Your task to perform on an android device: Open calendar and show me the fourth week of next month Image 0: 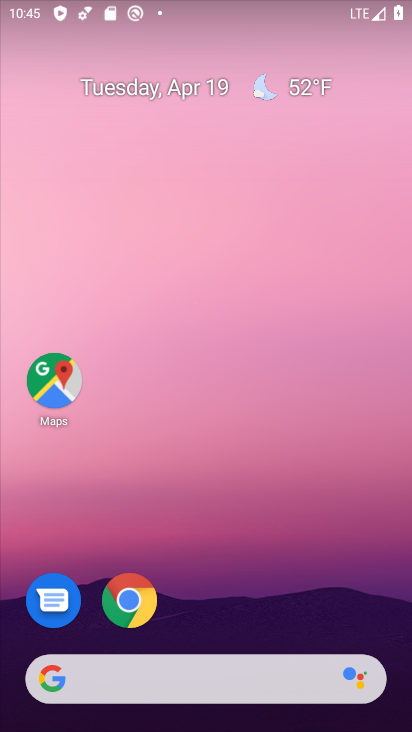
Step 0: drag from (276, 619) to (183, 99)
Your task to perform on an android device: Open calendar and show me the fourth week of next month Image 1: 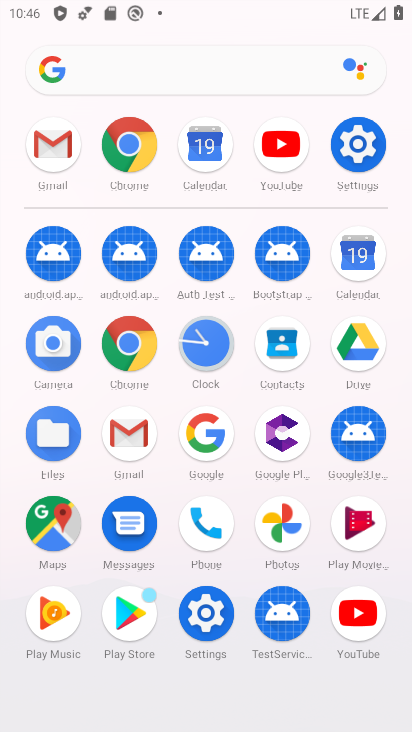
Step 1: click (361, 271)
Your task to perform on an android device: Open calendar and show me the fourth week of next month Image 2: 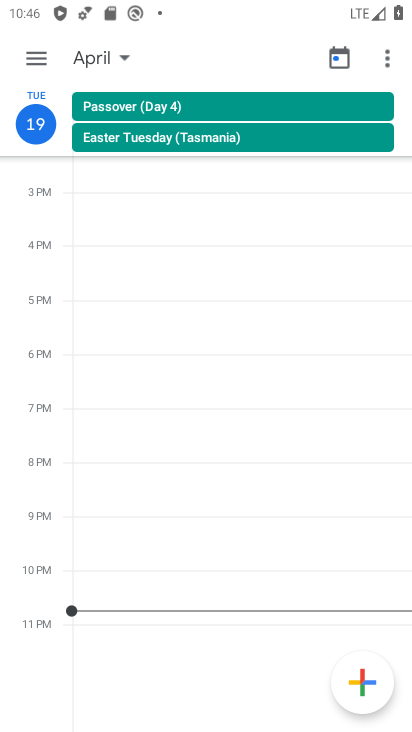
Step 2: click (79, 68)
Your task to perform on an android device: Open calendar and show me the fourth week of next month Image 3: 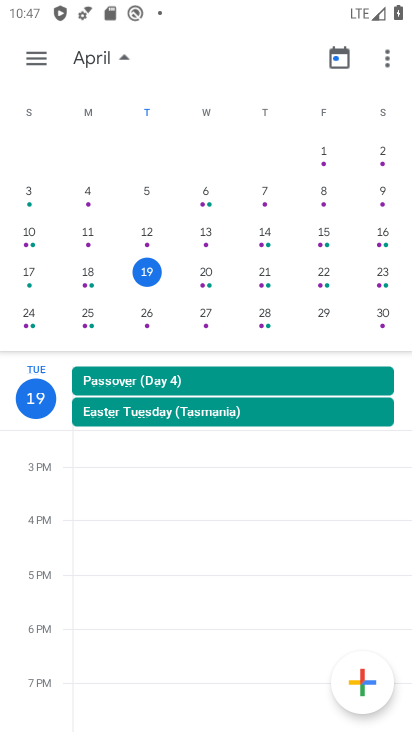
Step 3: drag from (347, 235) to (13, 210)
Your task to perform on an android device: Open calendar and show me the fourth week of next month Image 4: 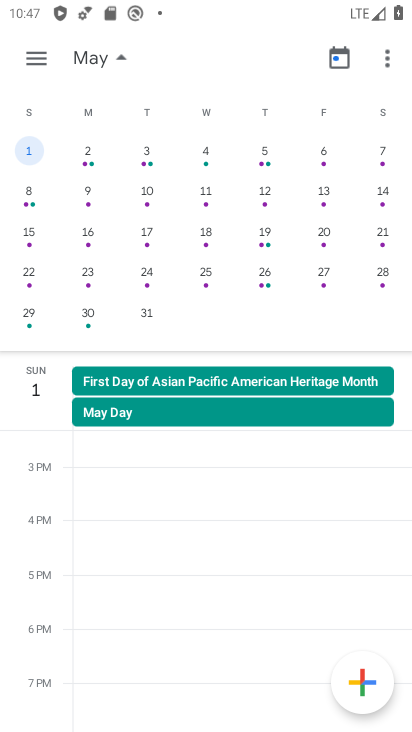
Step 4: click (263, 277)
Your task to perform on an android device: Open calendar and show me the fourth week of next month Image 5: 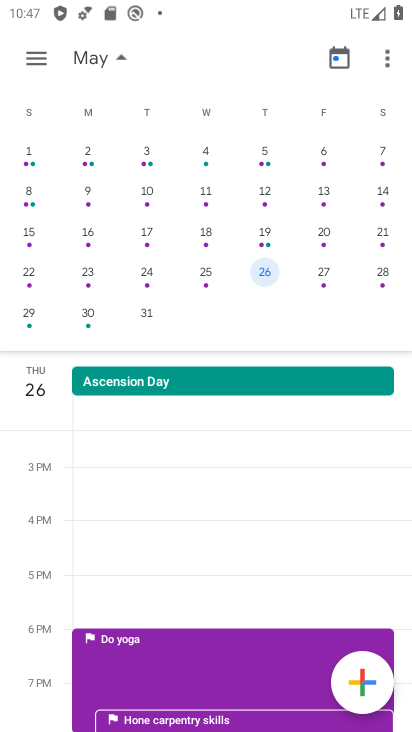
Step 5: task complete